Your task to perform on an android device: Open Google Chrome and click the shortcut for Amazon.com Image 0: 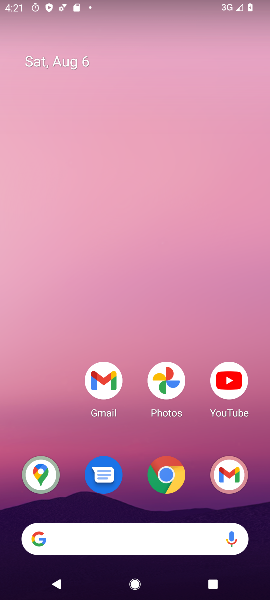
Step 0: click (162, 469)
Your task to perform on an android device: Open Google Chrome and click the shortcut for Amazon.com Image 1: 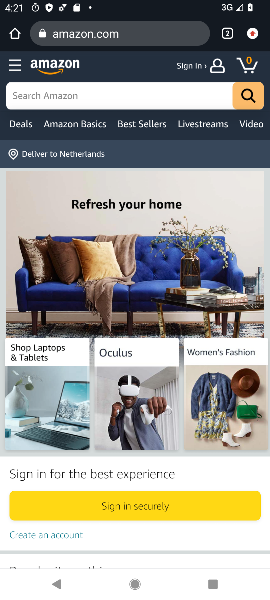
Step 1: task complete